Your task to perform on an android device: Open Wikipedia Image 0: 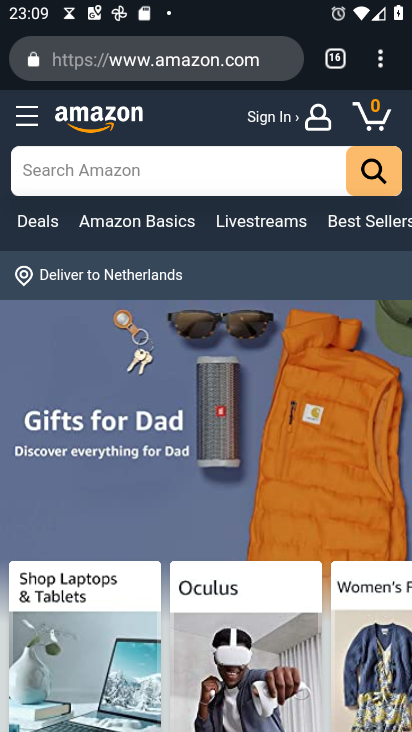
Step 0: click (379, 64)
Your task to perform on an android device: Open Wikipedia Image 1: 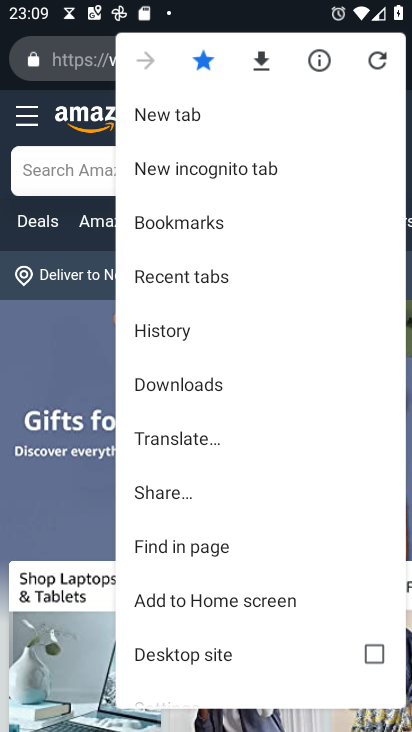
Step 1: click (179, 111)
Your task to perform on an android device: Open Wikipedia Image 2: 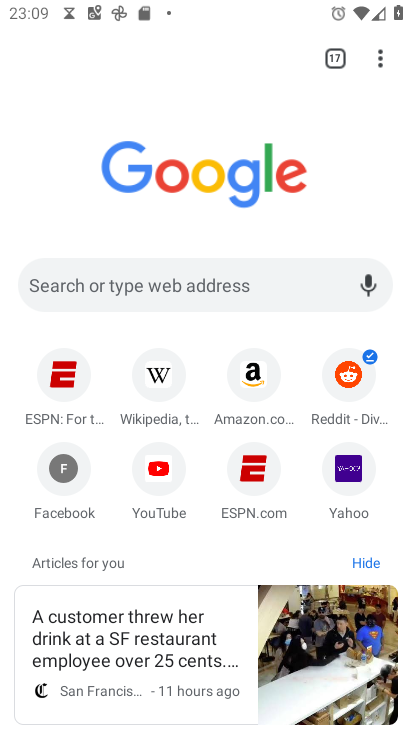
Step 2: click (156, 383)
Your task to perform on an android device: Open Wikipedia Image 3: 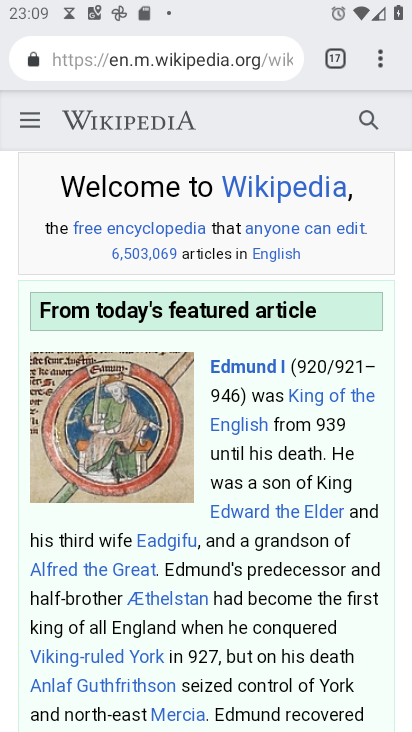
Step 3: task complete